Your task to perform on an android device: Open Google Maps and go to "Timeline" Image 0: 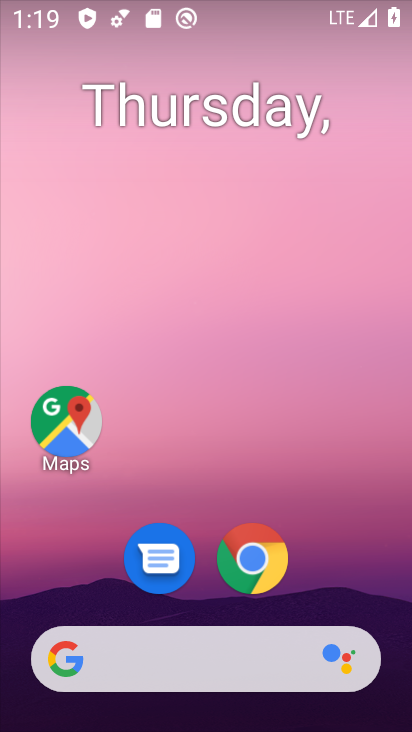
Step 0: click (48, 397)
Your task to perform on an android device: Open Google Maps and go to "Timeline" Image 1: 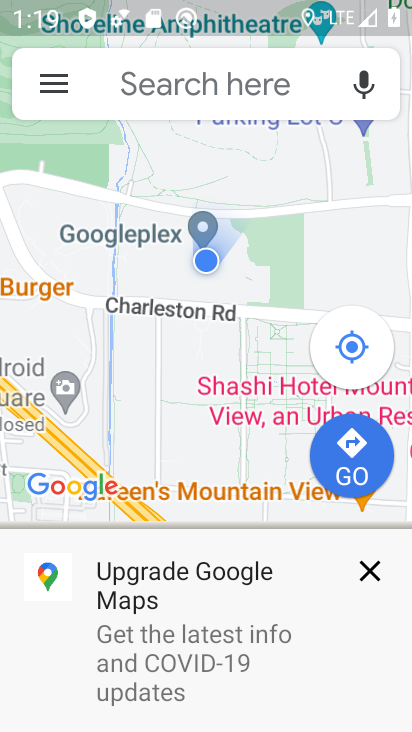
Step 1: click (61, 85)
Your task to perform on an android device: Open Google Maps and go to "Timeline" Image 2: 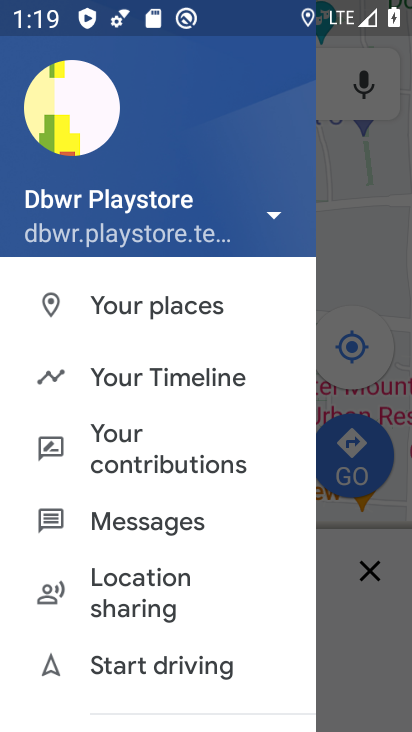
Step 2: click (161, 371)
Your task to perform on an android device: Open Google Maps and go to "Timeline" Image 3: 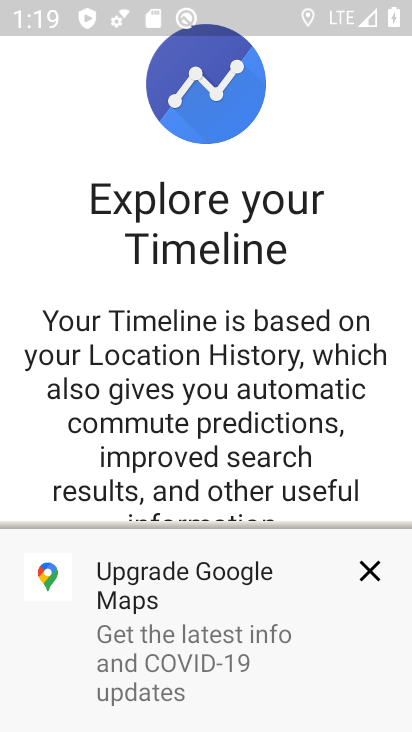
Step 3: task complete